Your task to perform on an android device: move an email to a new category in the gmail app Image 0: 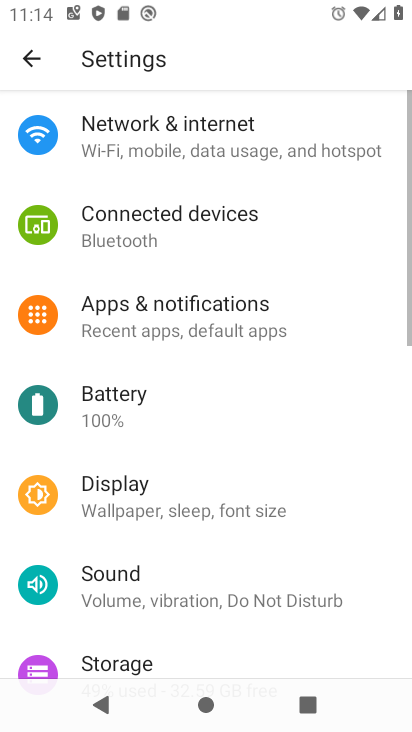
Step 0: press home button
Your task to perform on an android device: move an email to a new category in the gmail app Image 1: 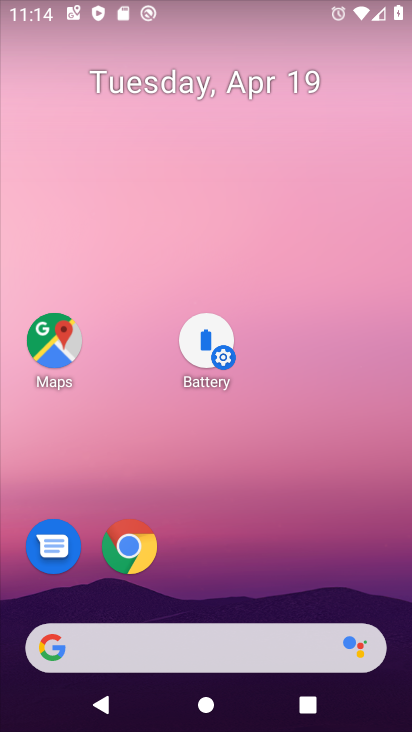
Step 1: drag from (230, 500) to (341, 173)
Your task to perform on an android device: move an email to a new category in the gmail app Image 2: 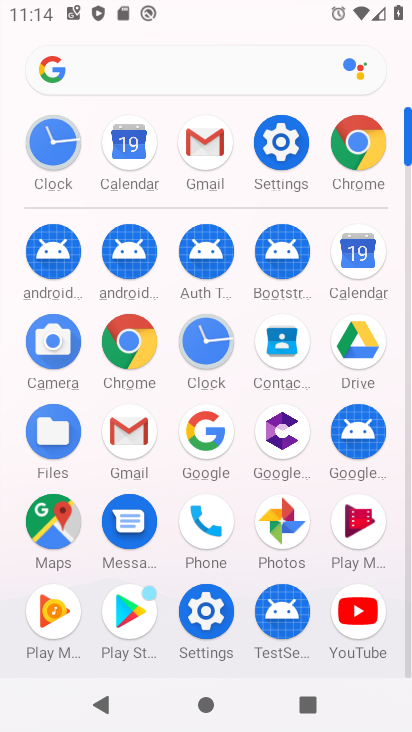
Step 2: click (204, 149)
Your task to perform on an android device: move an email to a new category in the gmail app Image 3: 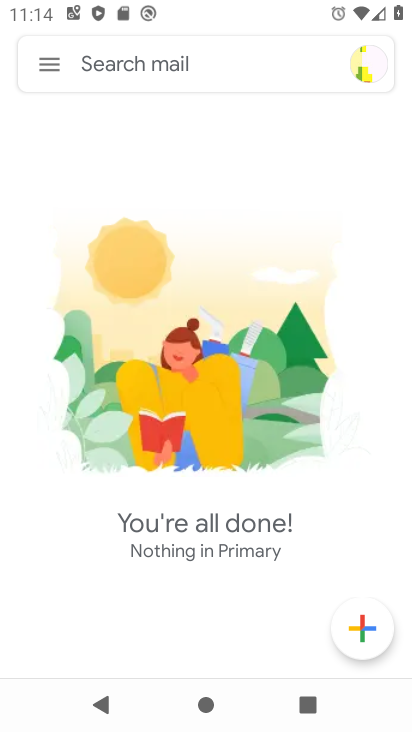
Step 3: click (54, 58)
Your task to perform on an android device: move an email to a new category in the gmail app Image 4: 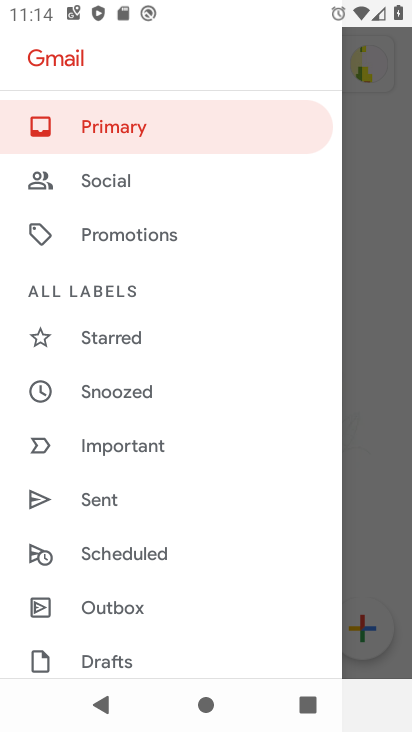
Step 4: drag from (154, 633) to (184, 161)
Your task to perform on an android device: move an email to a new category in the gmail app Image 5: 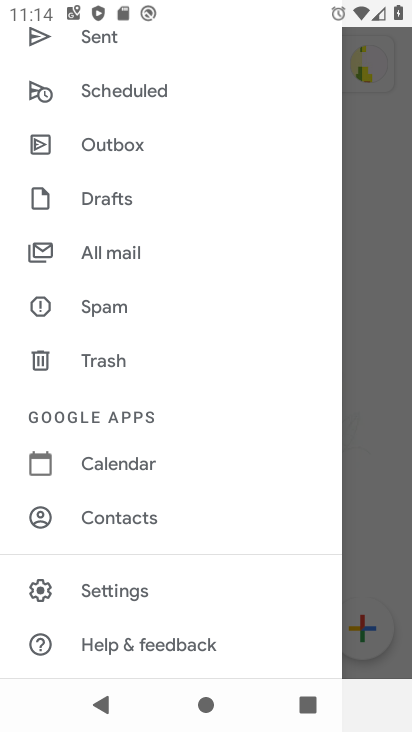
Step 5: click (109, 250)
Your task to perform on an android device: move an email to a new category in the gmail app Image 6: 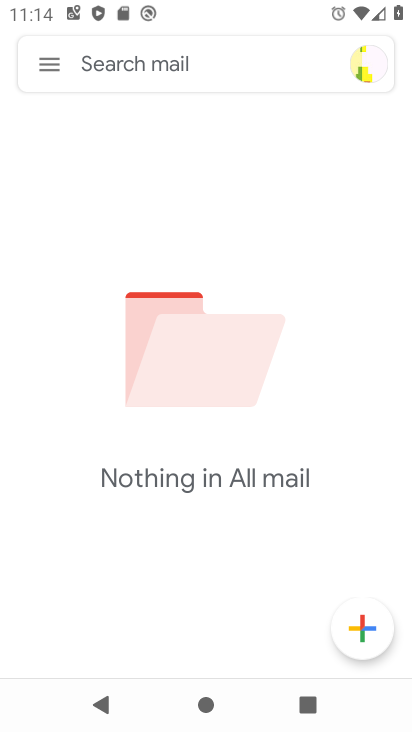
Step 6: task complete